Your task to perform on an android device: turn off priority inbox in the gmail app Image 0: 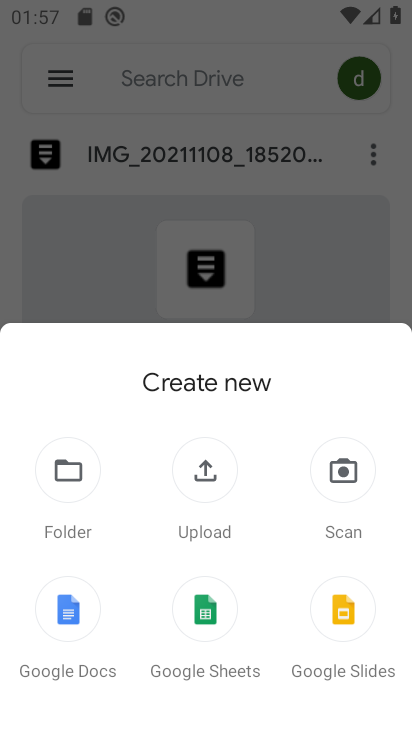
Step 0: press home button
Your task to perform on an android device: turn off priority inbox in the gmail app Image 1: 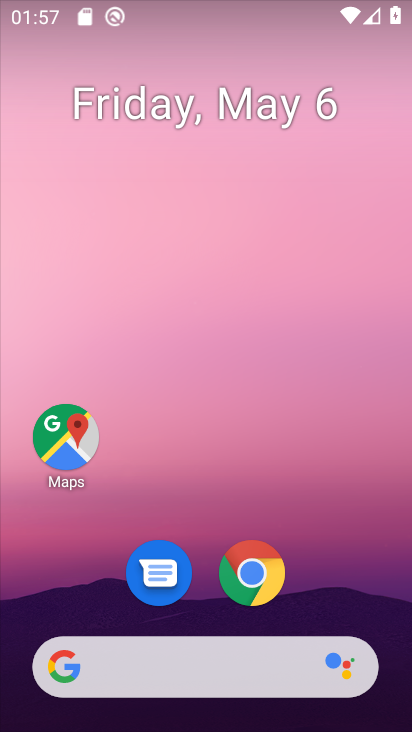
Step 1: drag from (310, 616) to (367, 243)
Your task to perform on an android device: turn off priority inbox in the gmail app Image 2: 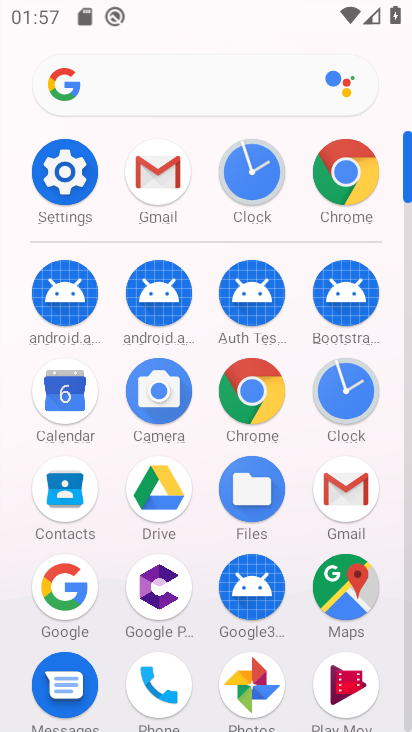
Step 2: click (155, 171)
Your task to perform on an android device: turn off priority inbox in the gmail app Image 3: 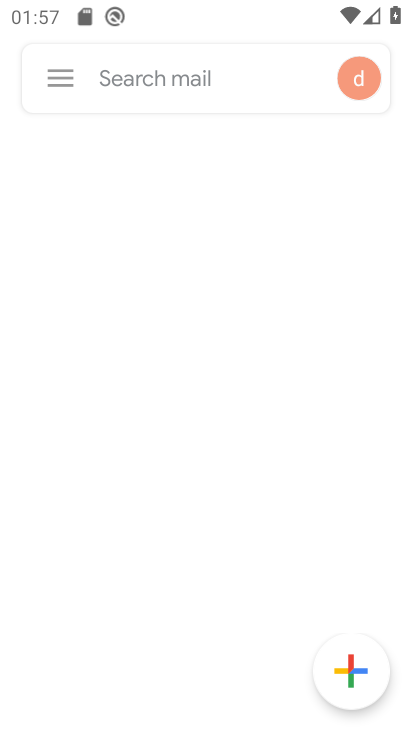
Step 3: click (52, 83)
Your task to perform on an android device: turn off priority inbox in the gmail app Image 4: 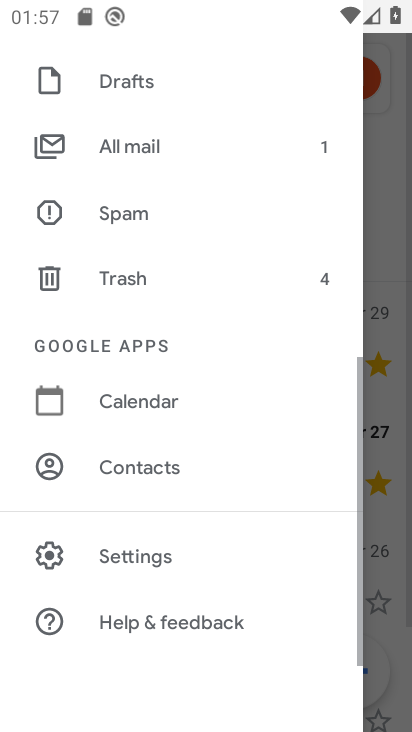
Step 4: click (149, 561)
Your task to perform on an android device: turn off priority inbox in the gmail app Image 5: 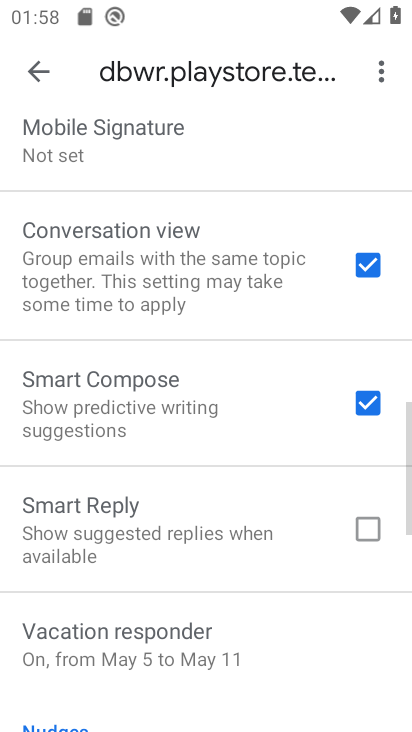
Step 5: drag from (191, 141) to (160, 658)
Your task to perform on an android device: turn off priority inbox in the gmail app Image 6: 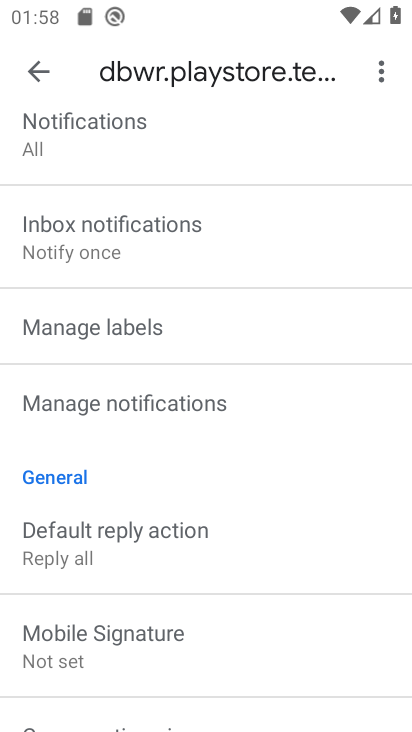
Step 6: drag from (132, 237) to (124, 563)
Your task to perform on an android device: turn off priority inbox in the gmail app Image 7: 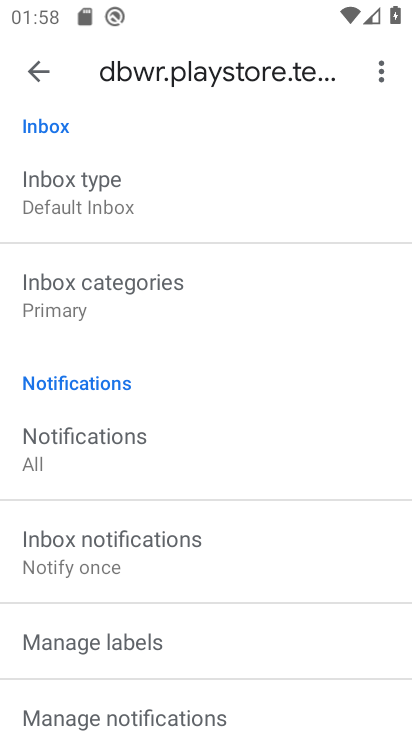
Step 7: click (91, 199)
Your task to perform on an android device: turn off priority inbox in the gmail app Image 8: 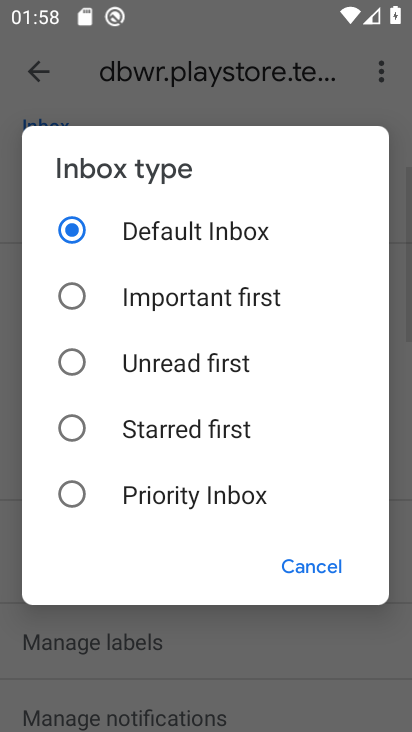
Step 8: click (126, 494)
Your task to perform on an android device: turn off priority inbox in the gmail app Image 9: 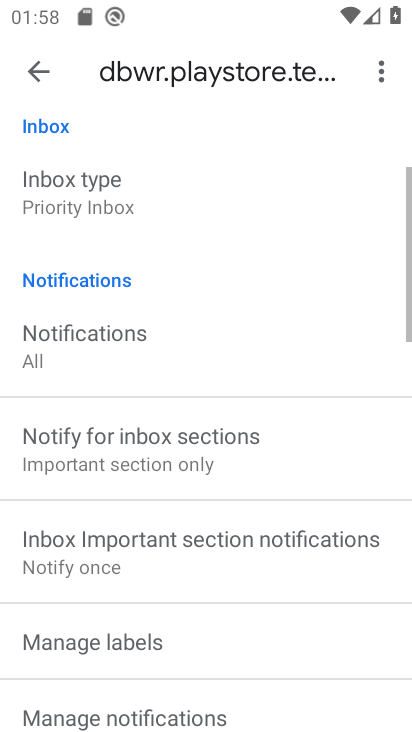
Step 9: click (83, 188)
Your task to perform on an android device: turn off priority inbox in the gmail app Image 10: 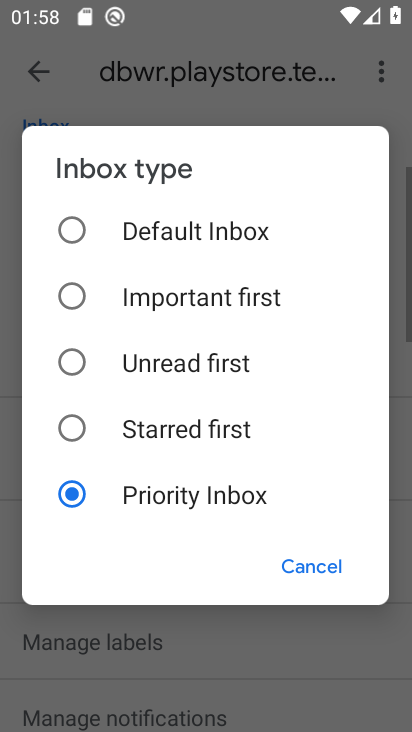
Step 10: click (143, 230)
Your task to perform on an android device: turn off priority inbox in the gmail app Image 11: 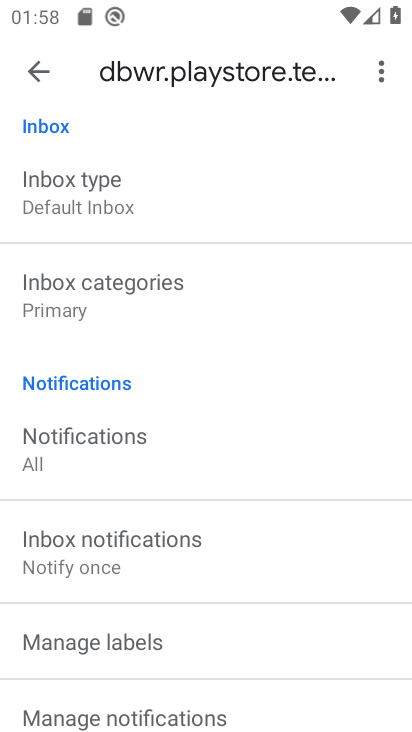
Step 11: task complete